Your task to perform on an android device: set the stopwatch Image 0: 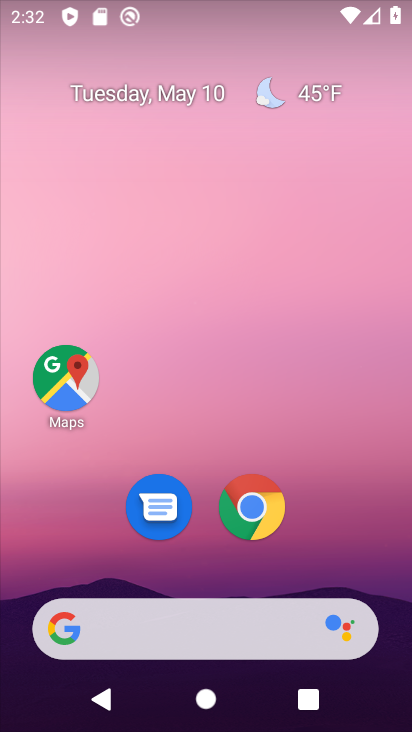
Step 0: drag from (221, 594) to (178, 303)
Your task to perform on an android device: set the stopwatch Image 1: 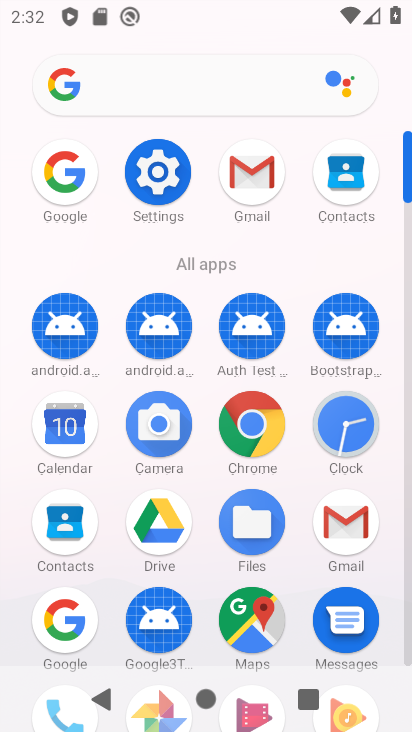
Step 1: click (329, 437)
Your task to perform on an android device: set the stopwatch Image 2: 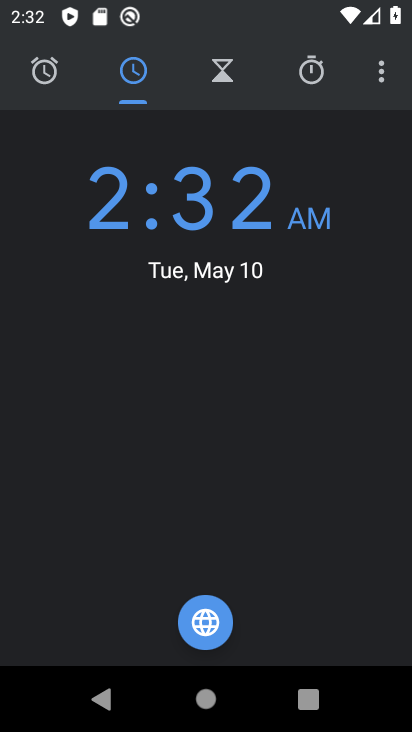
Step 2: click (304, 74)
Your task to perform on an android device: set the stopwatch Image 3: 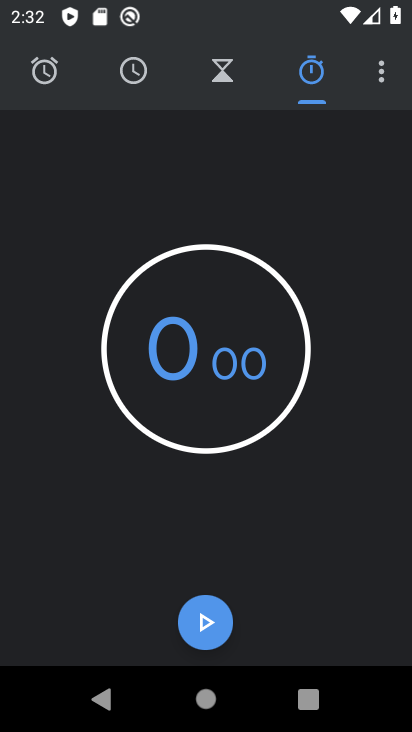
Step 3: click (196, 637)
Your task to perform on an android device: set the stopwatch Image 4: 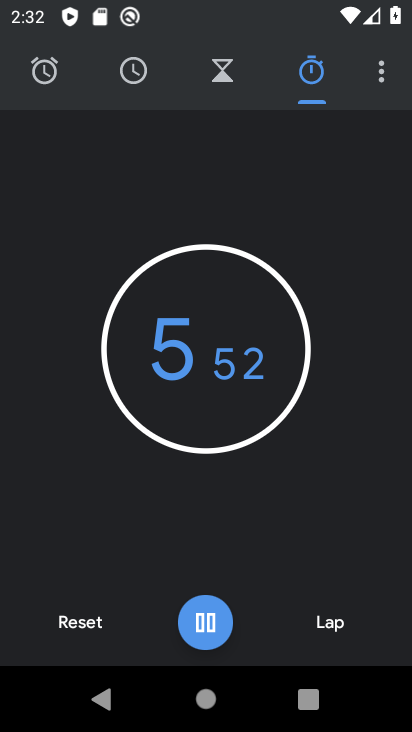
Step 4: click (209, 630)
Your task to perform on an android device: set the stopwatch Image 5: 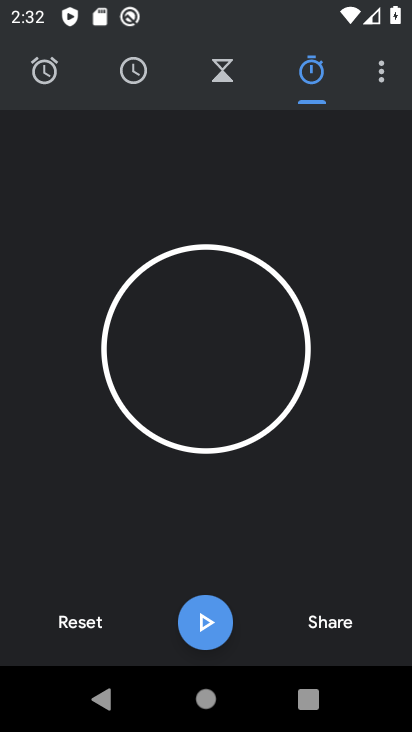
Step 5: click (203, 626)
Your task to perform on an android device: set the stopwatch Image 6: 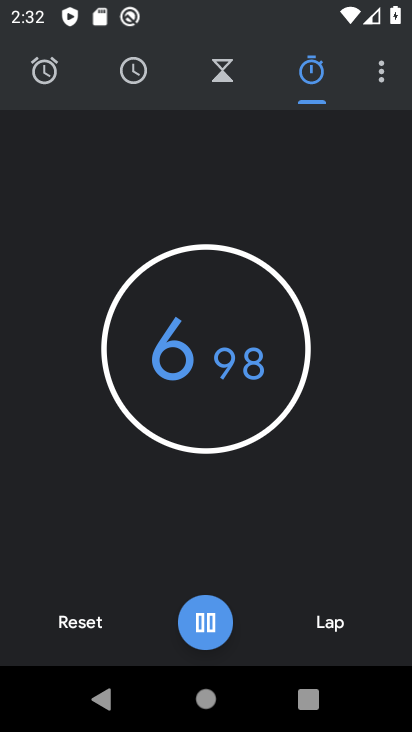
Step 6: click (203, 626)
Your task to perform on an android device: set the stopwatch Image 7: 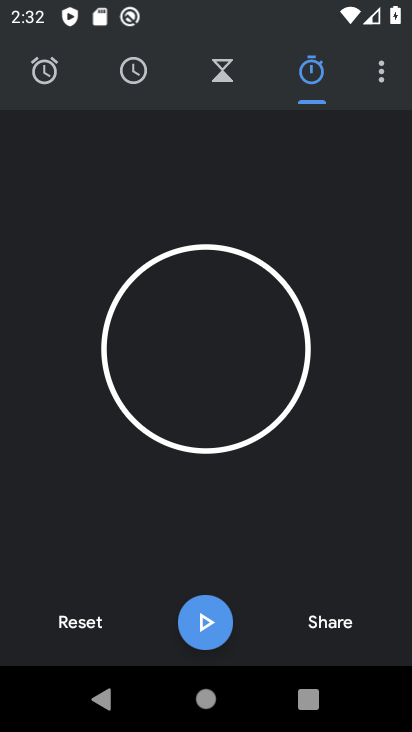
Step 7: task complete